Your task to perform on an android device: Set an alarm for 9am Image 0: 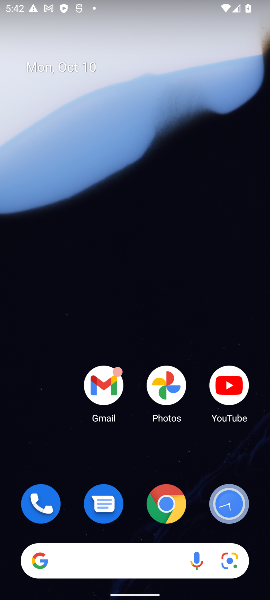
Step 0: drag from (158, 490) to (217, 68)
Your task to perform on an android device: Set an alarm for 9am Image 1: 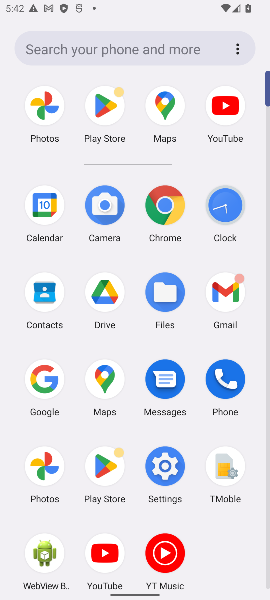
Step 1: click (225, 213)
Your task to perform on an android device: Set an alarm for 9am Image 2: 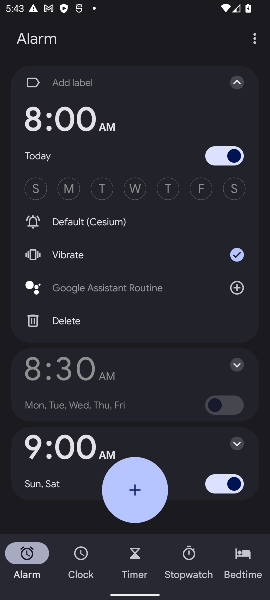
Step 2: task complete